Your task to perform on an android device: star an email in the gmail app Image 0: 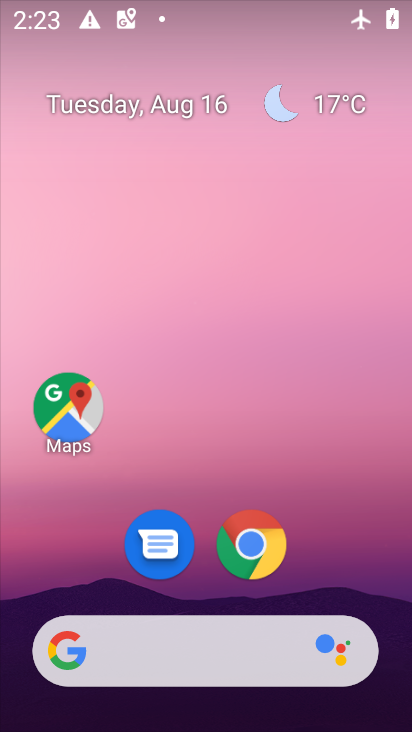
Step 0: drag from (183, 669) to (215, 137)
Your task to perform on an android device: star an email in the gmail app Image 1: 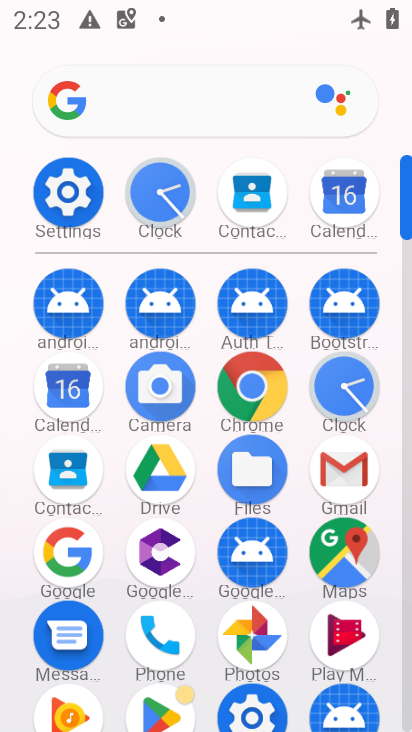
Step 1: click (341, 470)
Your task to perform on an android device: star an email in the gmail app Image 2: 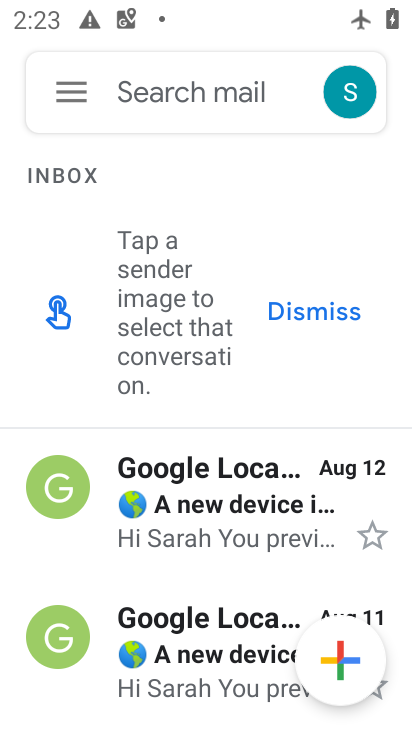
Step 2: click (368, 538)
Your task to perform on an android device: star an email in the gmail app Image 3: 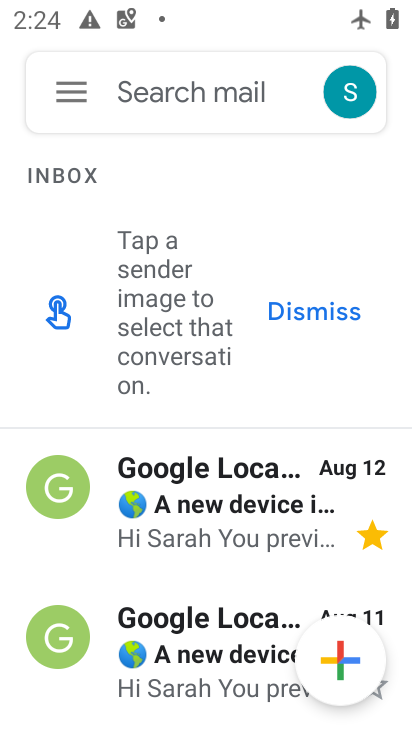
Step 3: task complete